Your task to perform on an android device: When is my next meeting? Image 0: 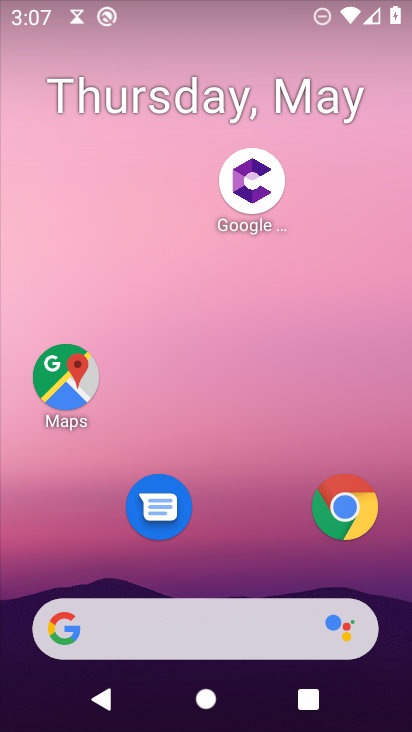
Step 0: drag from (246, 565) to (188, 167)
Your task to perform on an android device: When is my next meeting? Image 1: 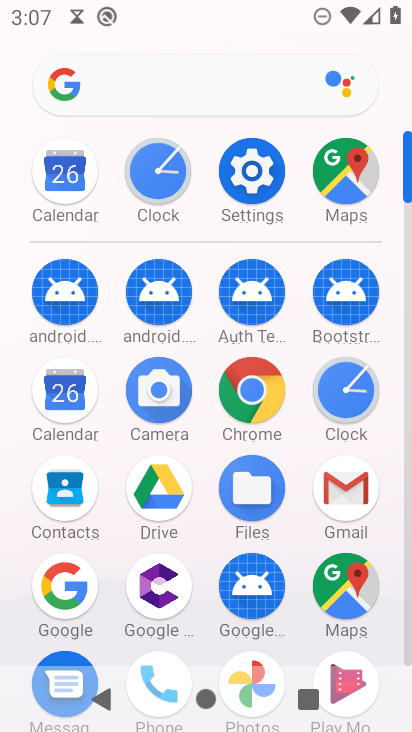
Step 1: click (65, 167)
Your task to perform on an android device: When is my next meeting? Image 2: 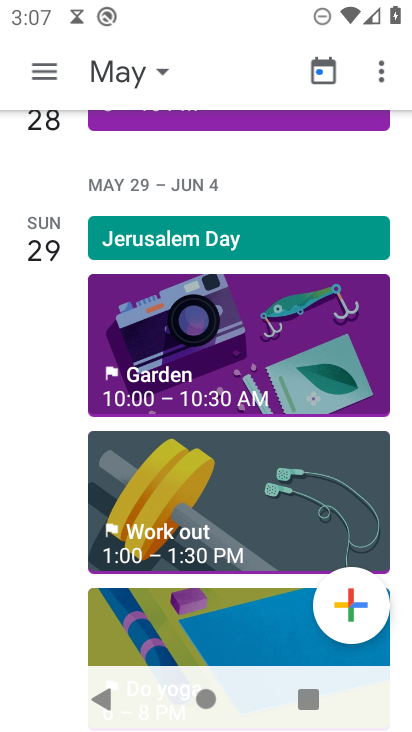
Step 2: click (46, 76)
Your task to perform on an android device: When is my next meeting? Image 3: 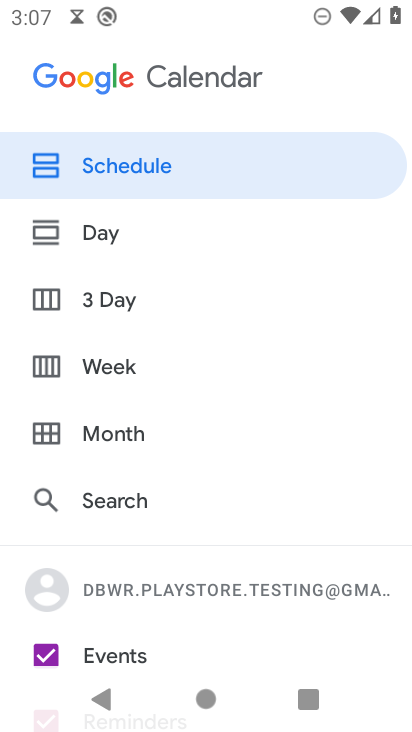
Step 3: click (180, 166)
Your task to perform on an android device: When is my next meeting? Image 4: 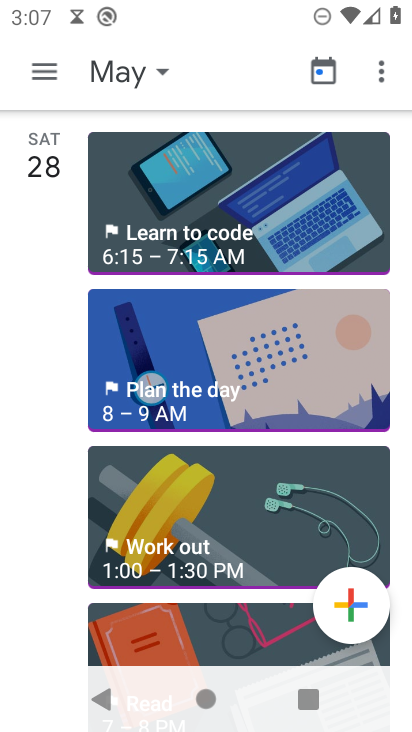
Step 4: task complete